Your task to perform on an android device: open sync settings in chrome Image 0: 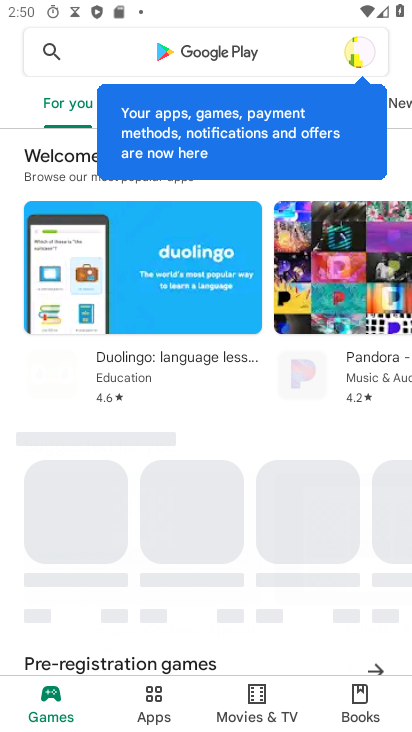
Step 0: press home button
Your task to perform on an android device: open sync settings in chrome Image 1: 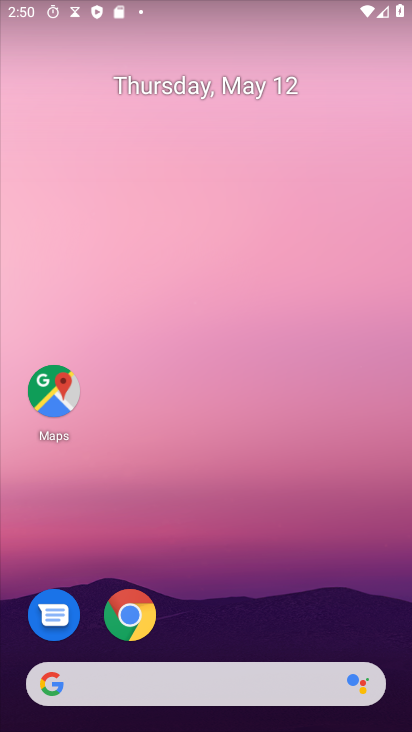
Step 1: click (127, 619)
Your task to perform on an android device: open sync settings in chrome Image 2: 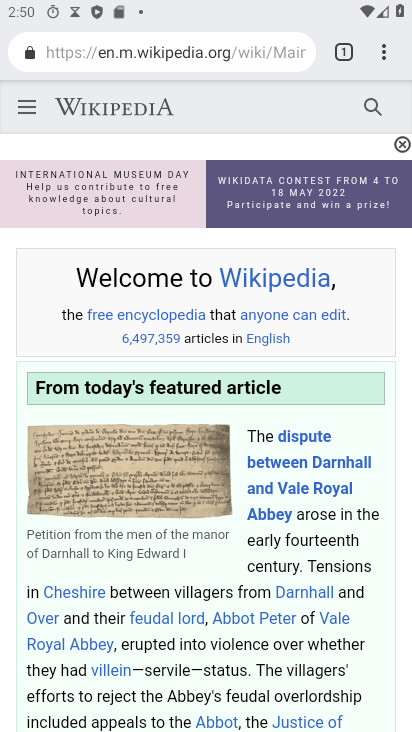
Step 2: click (375, 49)
Your task to perform on an android device: open sync settings in chrome Image 3: 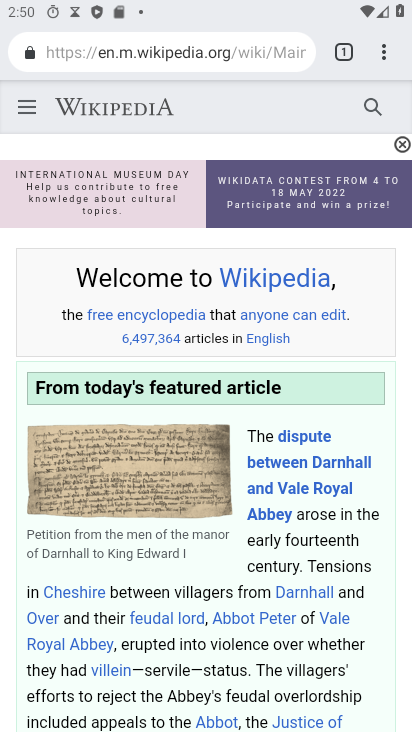
Step 3: click (385, 52)
Your task to perform on an android device: open sync settings in chrome Image 4: 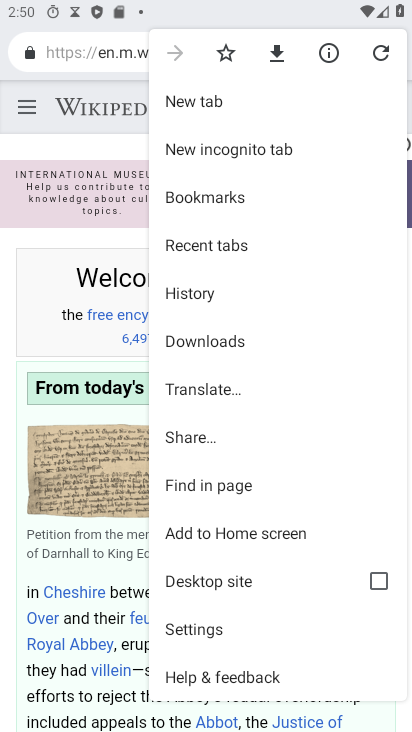
Step 4: click (195, 623)
Your task to perform on an android device: open sync settings in chrome Image 5: 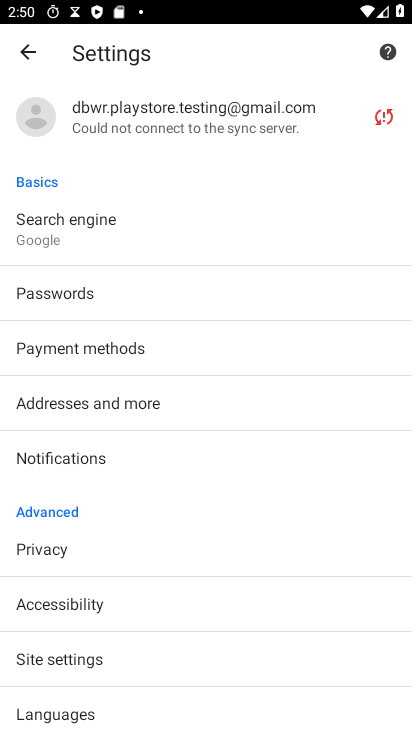
Step 5: click (119, 663)
Your task to perform on an android device: open sync settings in chrome Image 6: 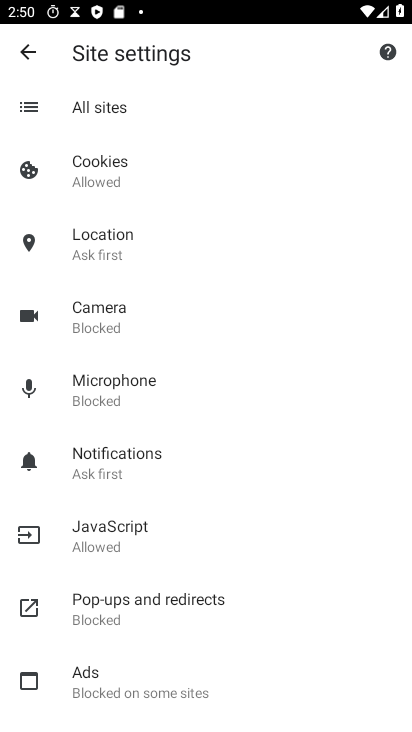
Step 6: drag from (147, 589) to (280, 154)
Your task to perform on an android device: open sync settings in chrome Image 7: 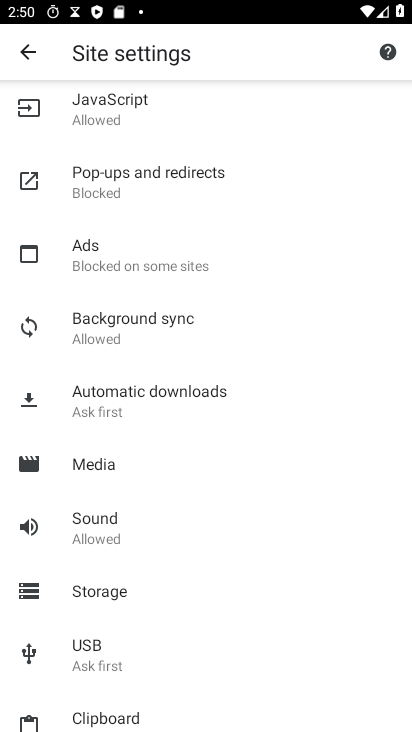
Step 7: click (158, 313)
Your task to perform on an android device: open sync settings in chrome Image 8: 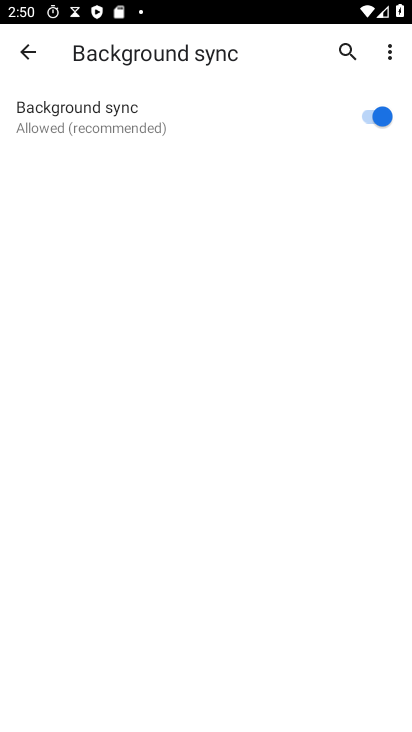
Step 8: task complete